Your task to perform on an android device: Go to accessibility settings Image 0: 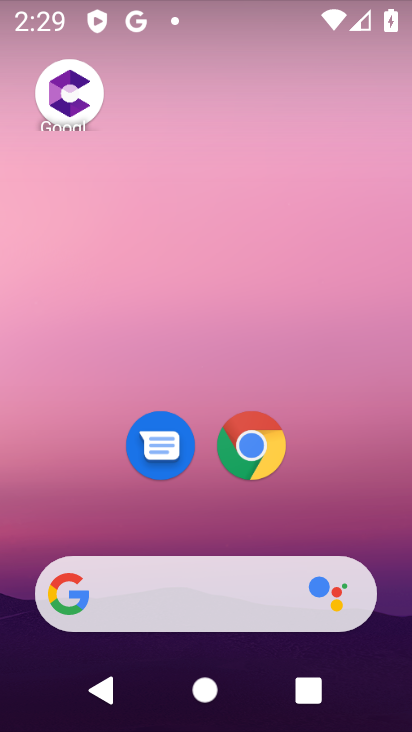
Step 0: drag from (230, 529) to (247, 76)
Your task to perform on an android device: Go to accessibility settings Image 1: 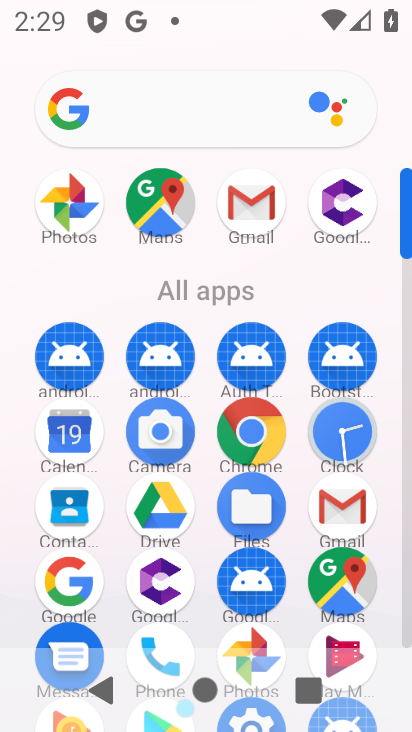
Step 1: drag from (207, 515) to (259, 179)
Your task to perform on an android device: Go to accessibility settings Image 2: 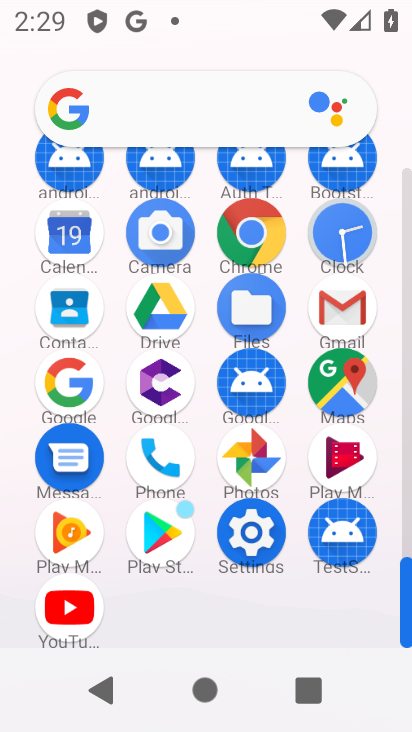
Step 2: click (259, 545)
Your task to perform on an android device: Go to accessibility settings Image 3: 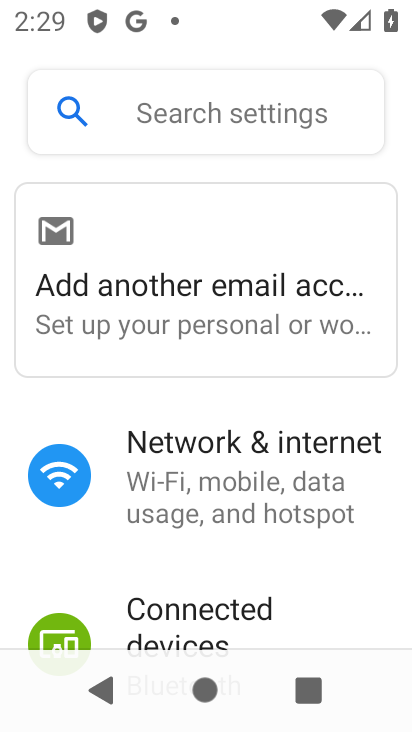
Step 3: drag from (232, 505) to (286, 122)
Your task to perform on an android device: Go to accessibility settings Image 4: 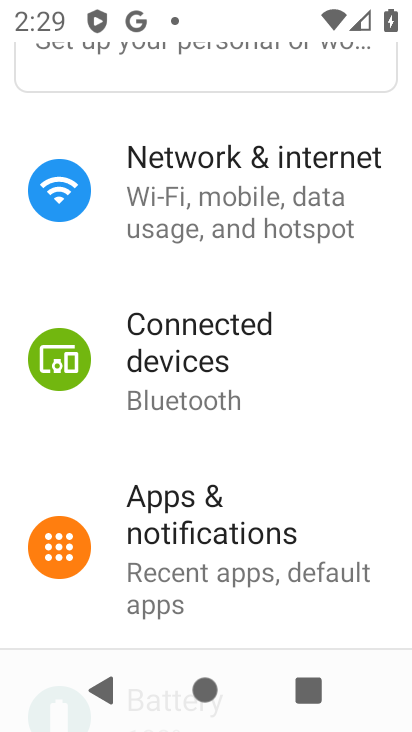
Step 4: drag from (219, 554) to (276, 187)
Your task to perform on an android device: Go to accessibility settings Image 5: 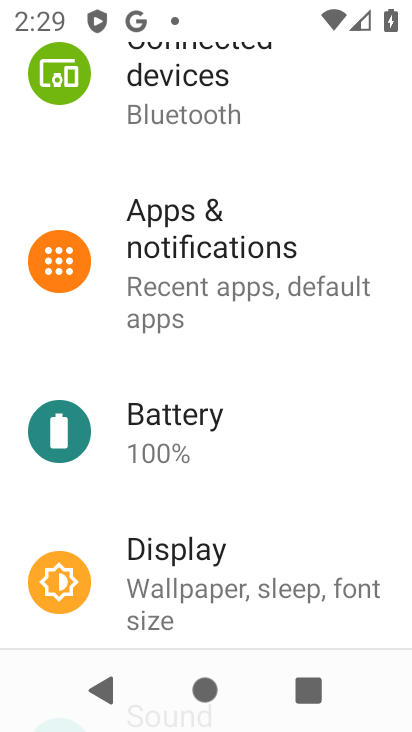
Step 5: drag from (188, 521) to (263, 104)
Your task to perform on an android device: Go to accessibility settings Image 6: 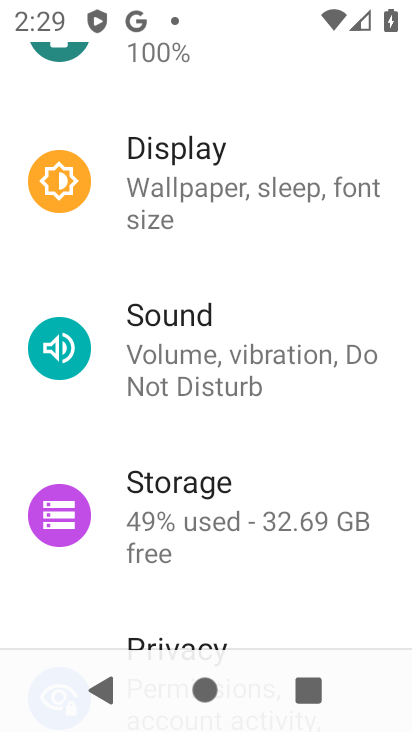
Step 6: drag from (230, 471) to (239, 89)
Your task to perform on an android device: Go to accessibility settings Image 7: 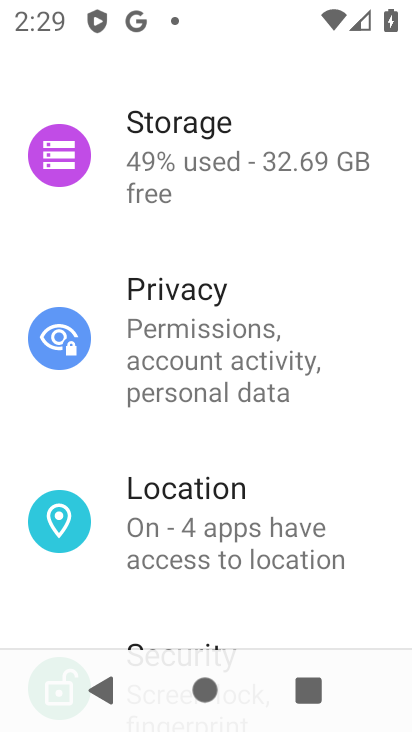
Step 7: drag from (216, 551) to (267, 141)
Your task to perform on an android device: Go to accessibility settings Image 8: 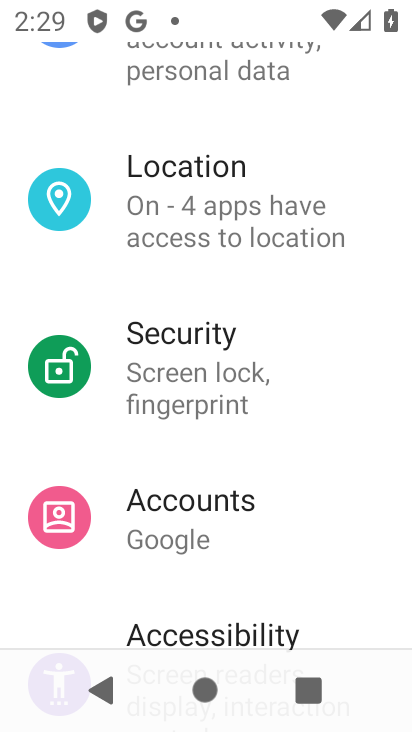
Step 8: drag from (199, 557) to (263, 138)
Your task to perform on an android device: Go to accessibility settings Image 9: 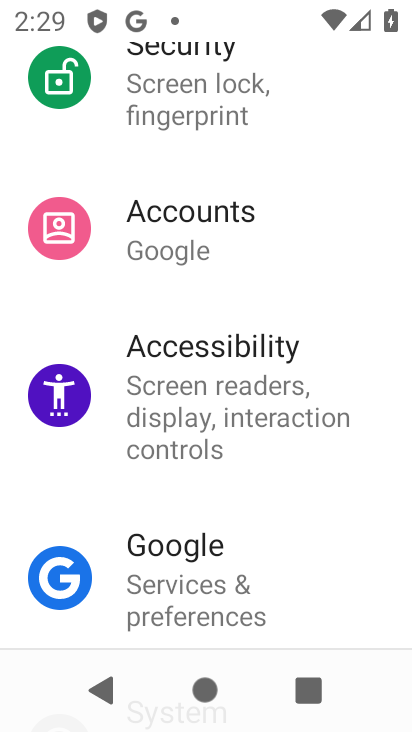
Step 9: drag from (234, 543) to (234, 388)
Your task to perform on an android device: Go to accessibility settings Image 10: 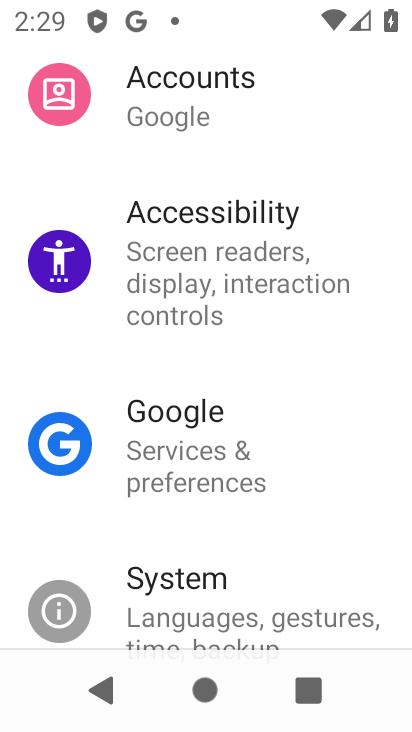
Step 10: click (211, 224)
Your task to perform on an android device: Go to accessibility settings Image 11: 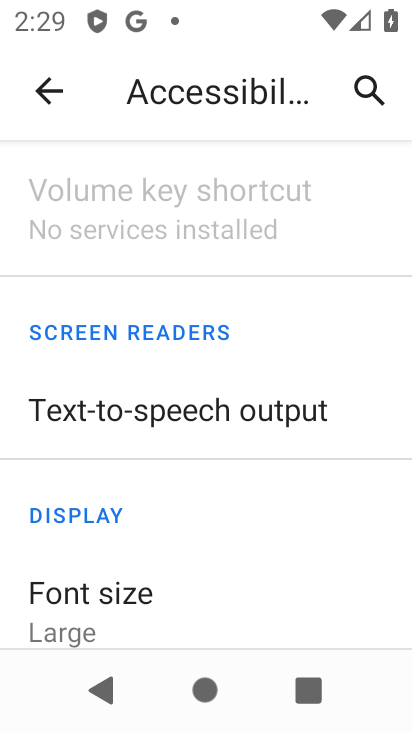
Step 11: task complete